Your task to perform on an android device: Check the weather Image 0: 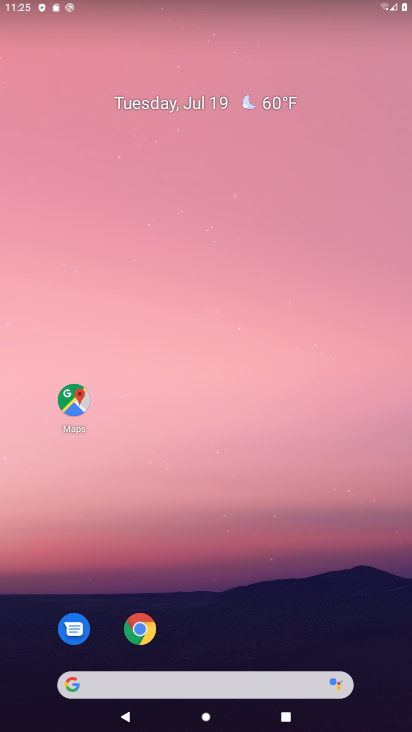
Step 0: click (171, 689)
Your task to perform on an android device: Check the weather Image 1: 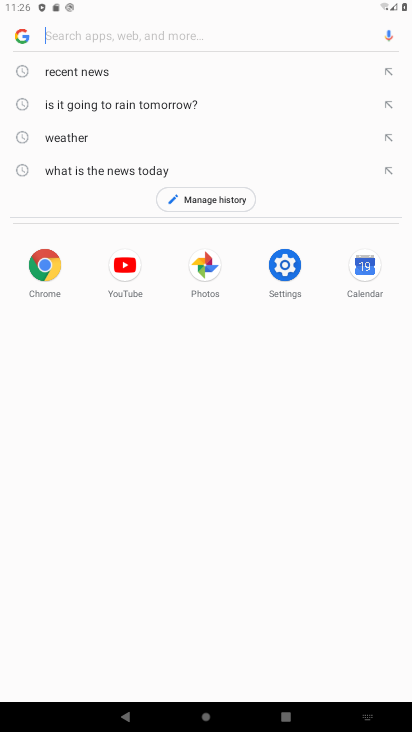
Step 1: type "weather"
Your task to perform on an android device: Check the weather Image 2: 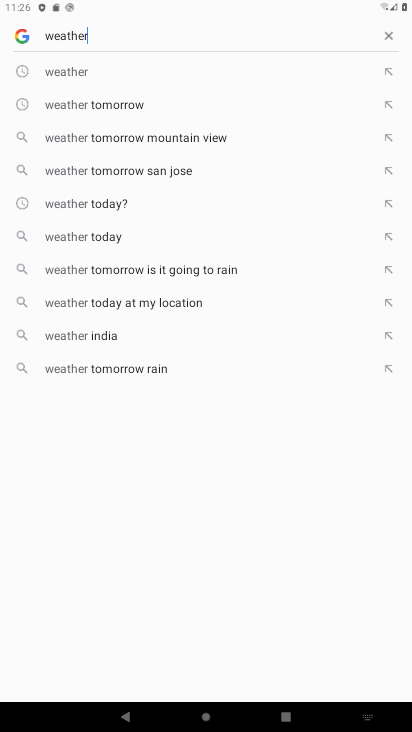
Step 2: click (166, 67)
Your task to perform on an android device: Check the weather Image 3: 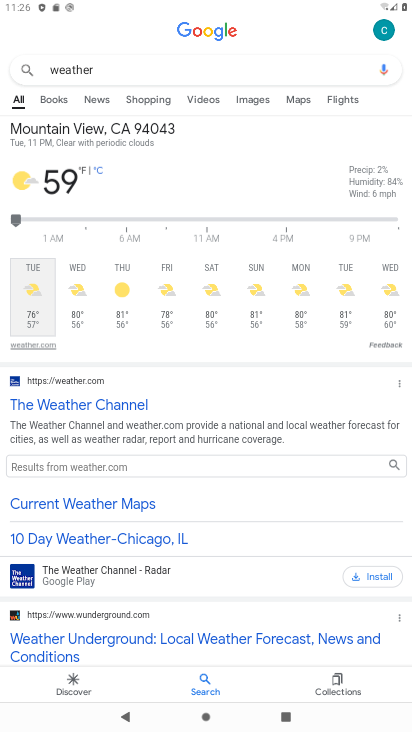
Step 3: task complete